Your task to perform on an android device: turn pop-ups off in chrome Image 0: 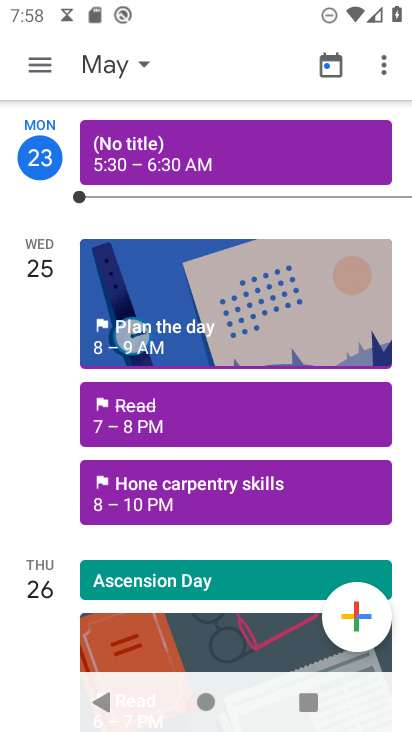
Step 0: press home button
Your task to perform on an android device: turn pop-ups off in chrome Image 1: 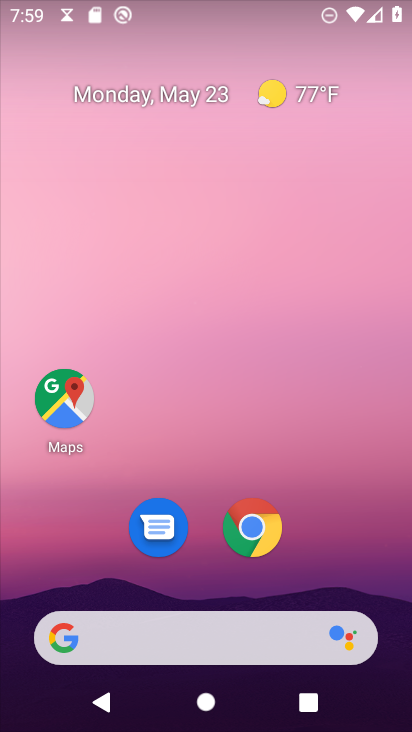
Step 1: drag from (250, 669) to (262, 140)
Your task to perform on an android device: turn pop-ups off in chrome Image 2: 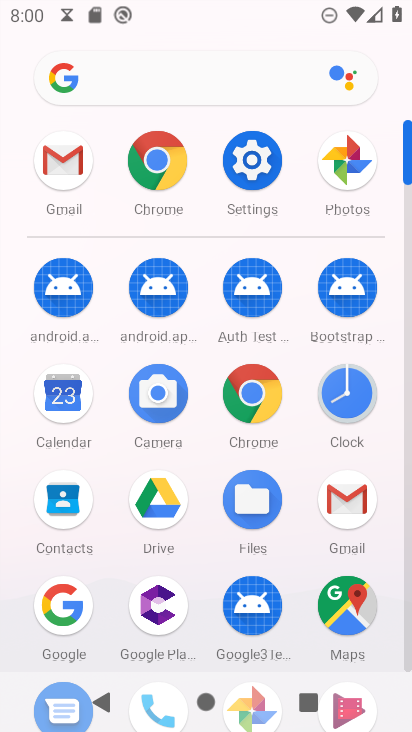
Step 2: click (155, 139)
Your task to perform on an android device: turn pop-ups off in chrome Image 3: 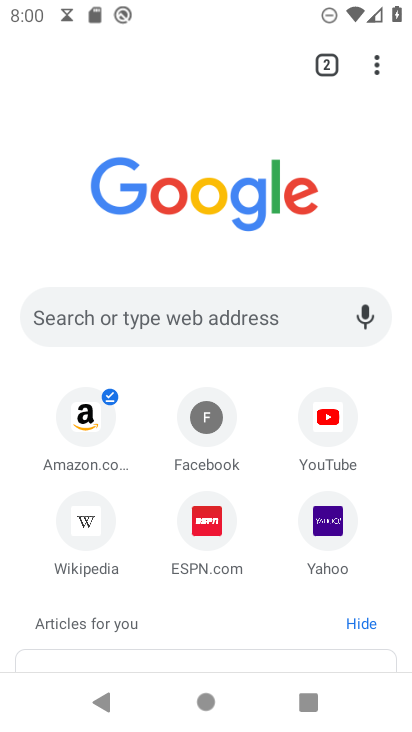
Step 3: click (376, 95)
Your task to perform on an android device: turn pop-ups off in chrome Image 4: 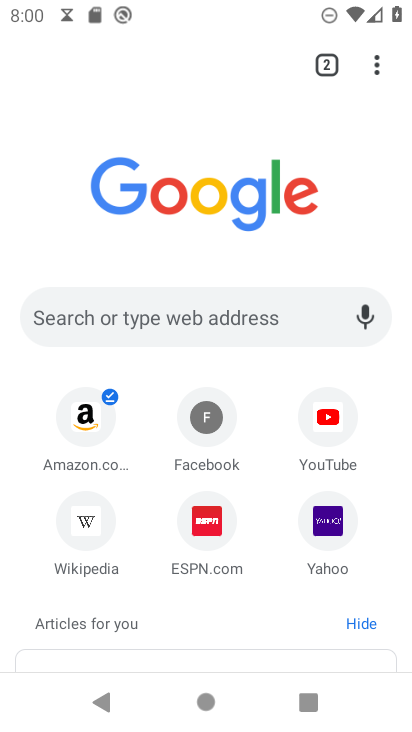
Step 4: click (370, 63)
Your task to perform on an android device: turn pop-ups off in chrome Image 5: 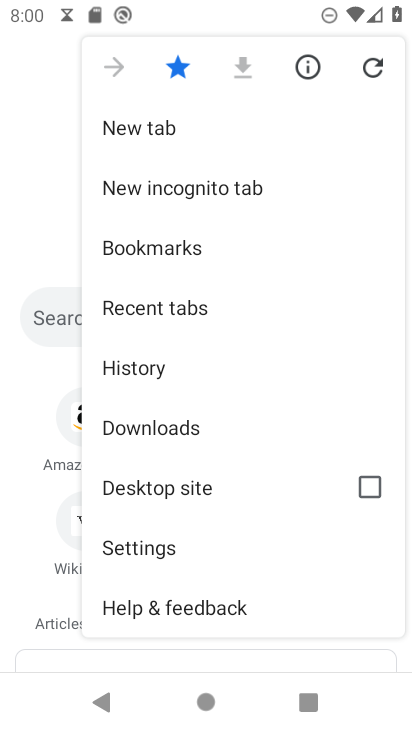
Step 5: click (177, 544)
Your task to perform on an android device: turn pop-ups off in chrome Image 6: 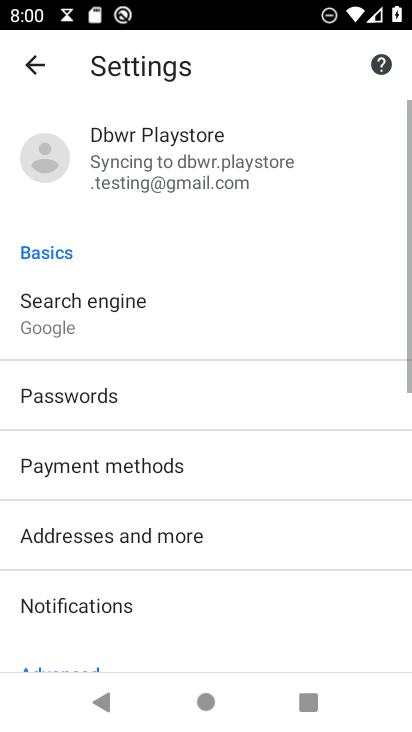
Step 6: drag from (208, 634) to (246, 318)
Your task to perform on an android device: turn pop-ups off in chrome Image 7: 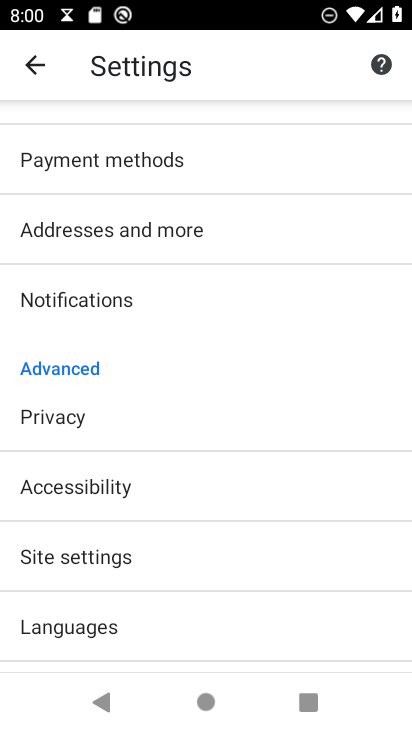
Step 7: click (149, 565)
Your task to perform on an android device: turn pop-ups off in chrome Image 8: 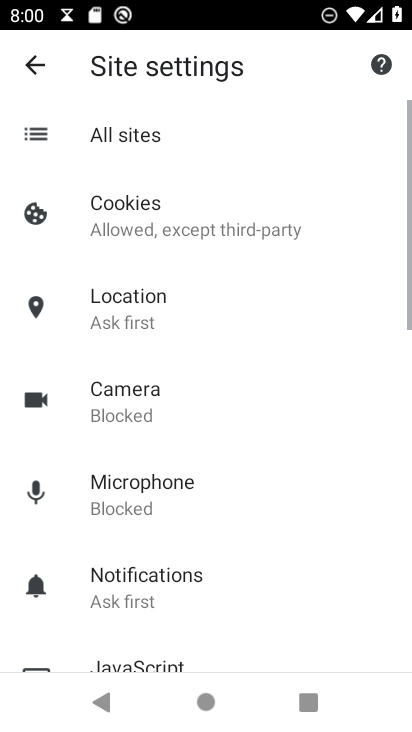
Step 8: drag from (191, 606) to (209, 355)
Your task to perform on an android device: turn pop-ups off in chrome Image 9: 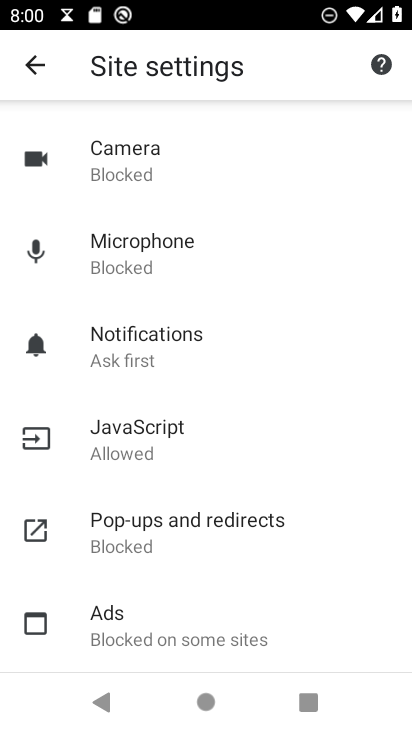
Step 9: click (164, 531)
Your task to perform on an android device: turn pop-ups off in chrome Image 10: 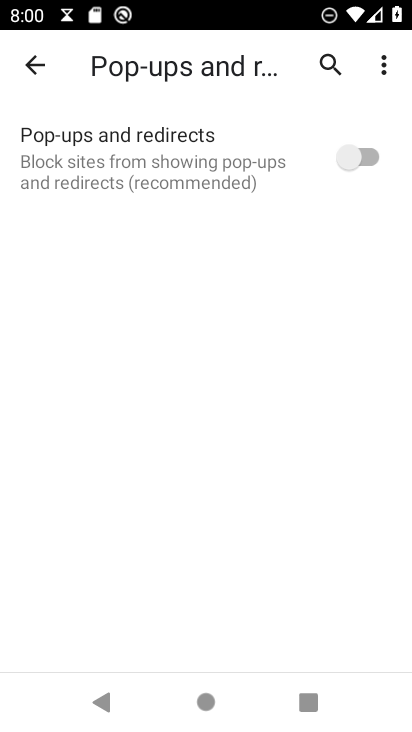
Step 10: click (357, 155)
Your task to perform on an android device: turn pop-ups off in chrome Image 11: 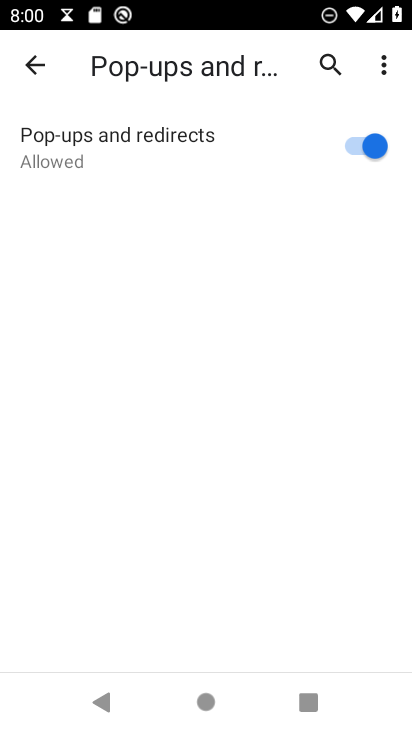
Step 11: click (357, 155)
Your task to perform on an android device: turn pop-ups off in chrome Image 12: 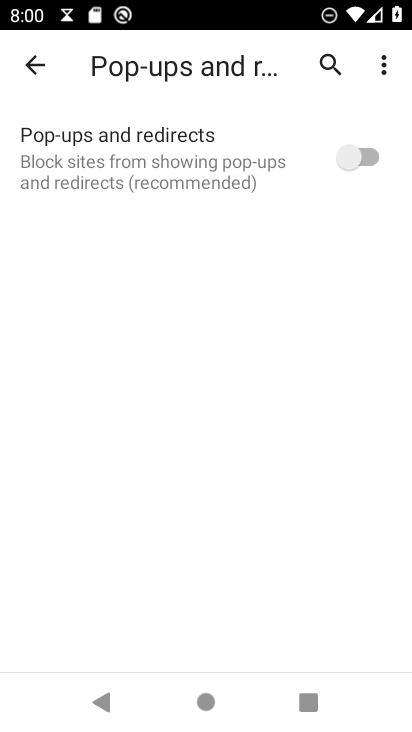
Step 12: task complete